Your task to perform on an android device: manage bookmarks in the chrome app Image 0: 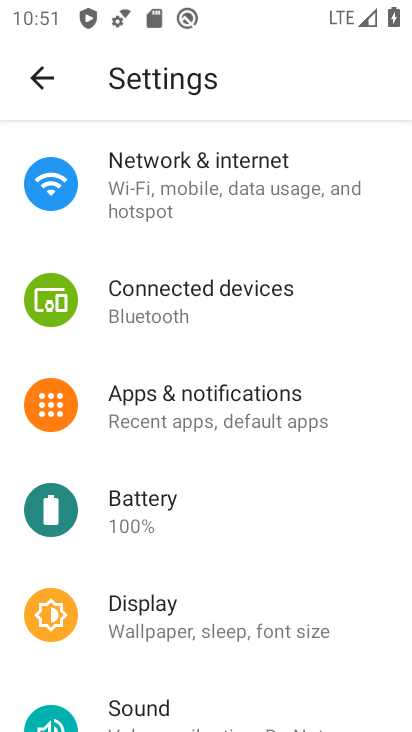
Step 0: press home button
Your task to perform on an android device: manage bookmarks in the chrome app Image 1: 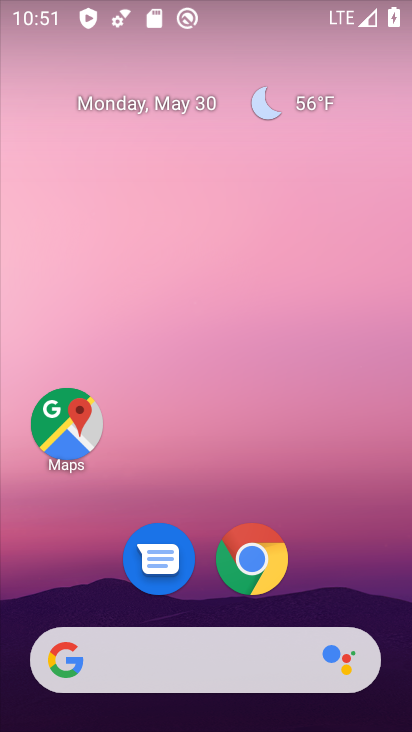
Step 1: click (272, 569)
Your task to perform on an android device: manage bookmarks in the chrome app Image 2: 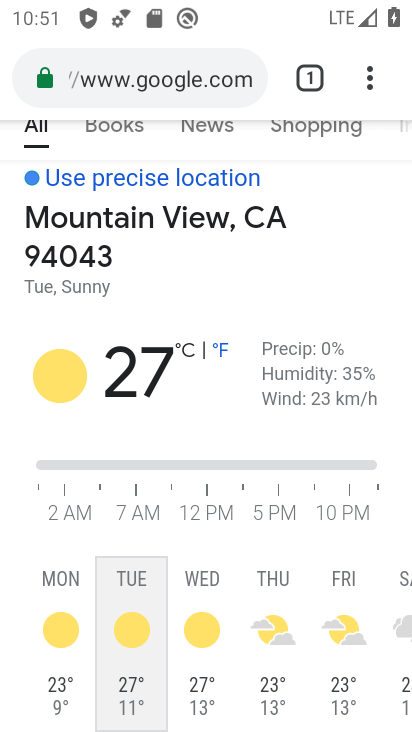
Step 2: click (369, 67)
Your task to perform on an android device: manage bookmarks in the chrome app Image 3: 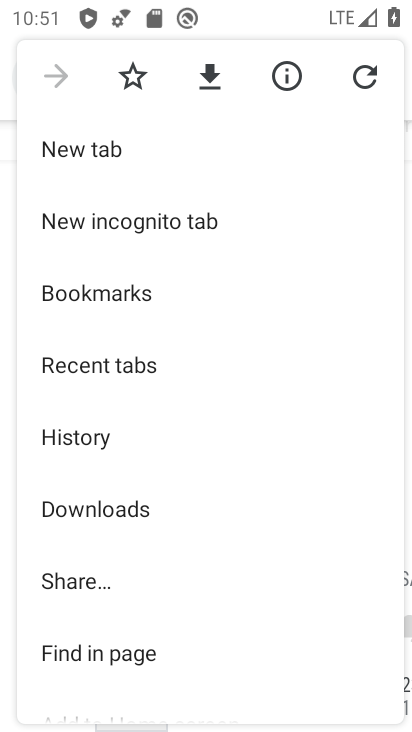
Step 3: click (255, 299)
Your task to perform on an android device: manage bookmarks in the chrome app Image 4: 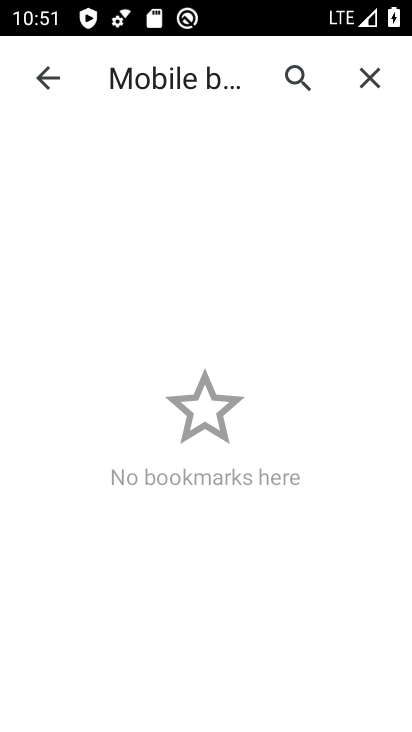
Step 4: task complete